Your task to perform on an android device: Search for sushi restaurants on Maps Image 0: 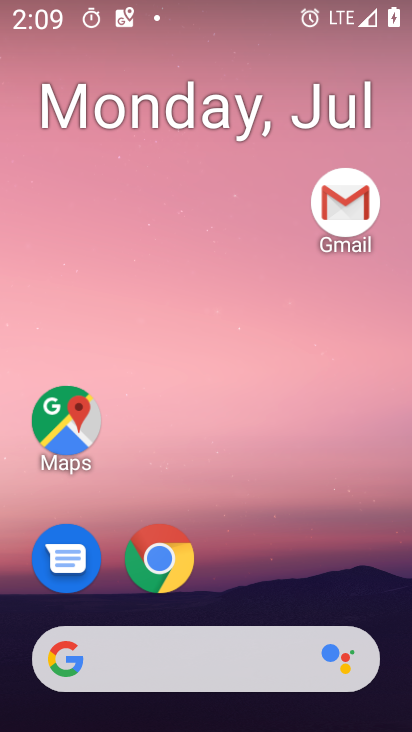
Step 0: drag from (362, 574) to (356, 186)
Your task to perform on an android device: Search for sushi restaurants on Maps Image 1: 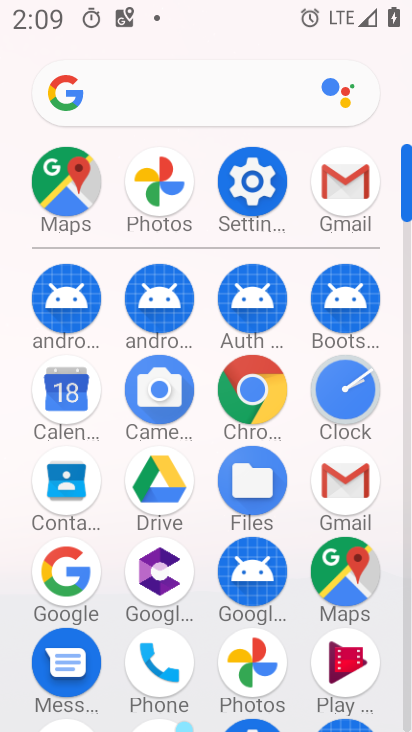
Step 1: click (353, 569)
Your task to perform on an android device: Search for sushi restaurants on Maps Image 2: 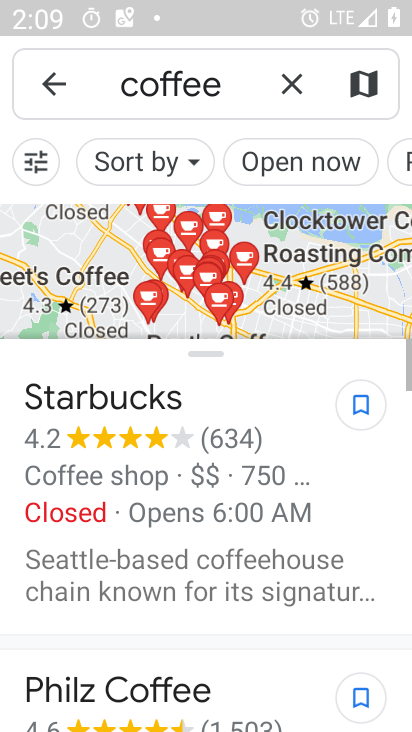
Step 2: press back button
Your task to perform on an android device: Search for sushi restaurants on Maps Image 3: 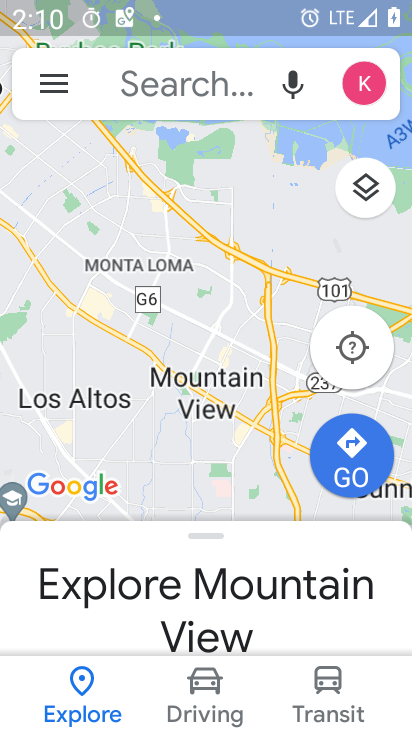
Step 3: click (218, 93)
Your task to perform on an android device: Search for sushi restaurants on Maps Image 4: 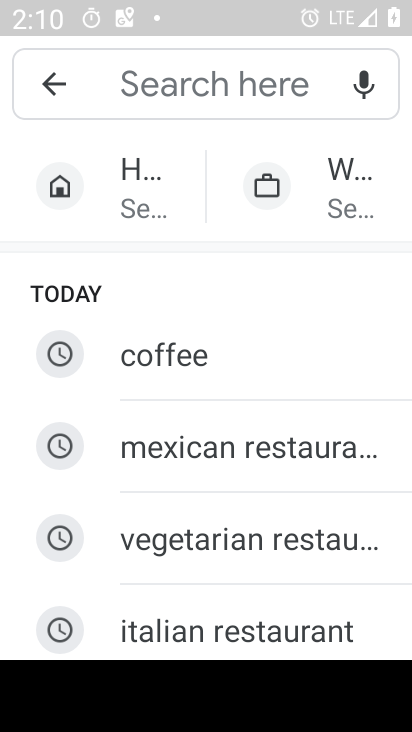
Step 4: type "sushi restaurants"
Your task to perform on an android device: Search for sushi restaurants on Maps Image 5: 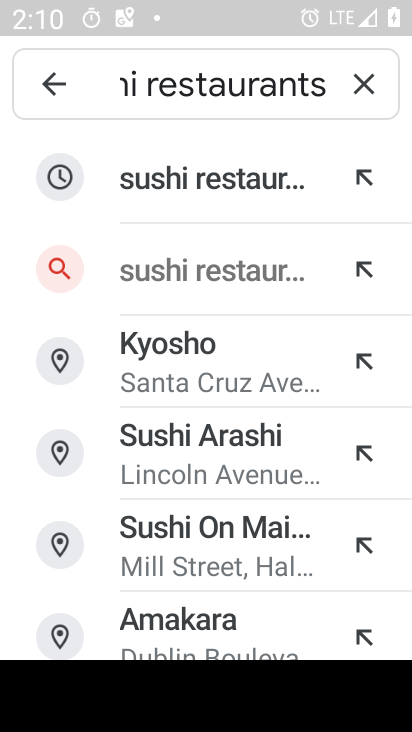
Step 5: click (267, 177)
Your task to perform on an android device: Search for sushi restaurants on Maps Image 6: 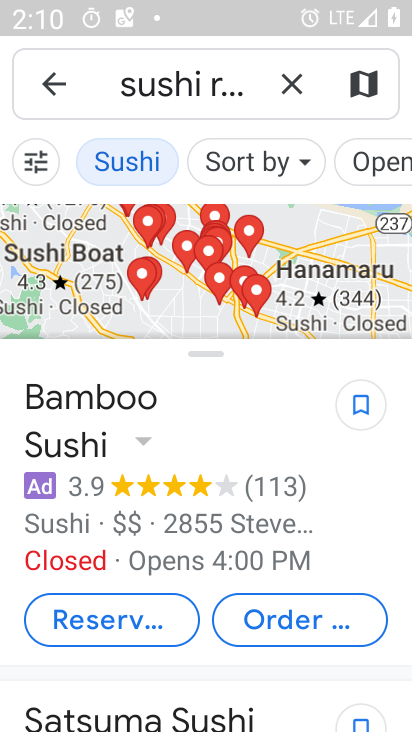
Step 6: task complete